Your task to perform on an android device: remove spam from my inbox in the gmail app Image 0: 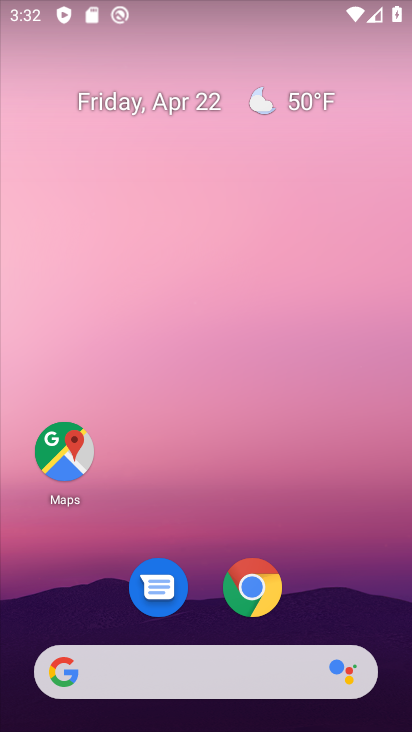
Step 0: drag from (343, 612) to (332, 15)
Your task to perform on an android device: remove spam from my inbox in the gmail app Image 1: 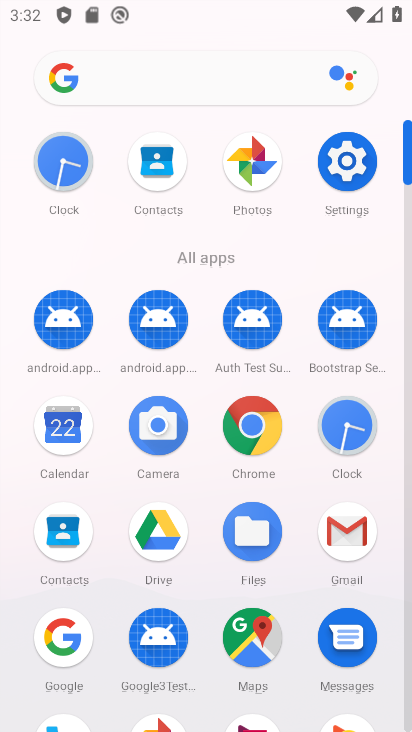
Step 1: click (335, 526)
Your task to perform on an android device: remove spam from my inbox in the gmail app Image 2: 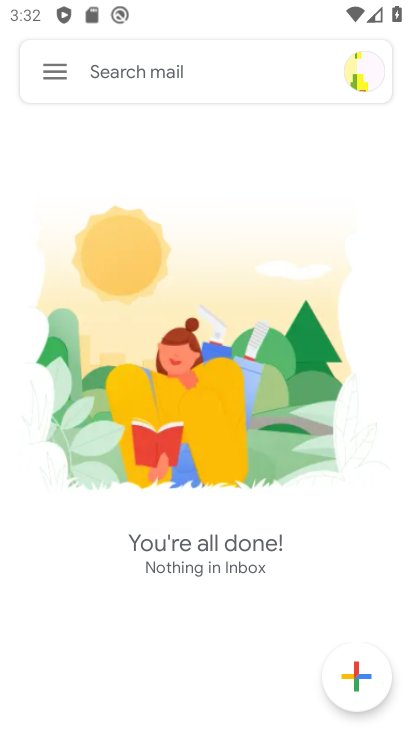
Step 2: click (56, 73)
Your task to perform on an android device: remove spam from my inbox in the gmail app Image 3: 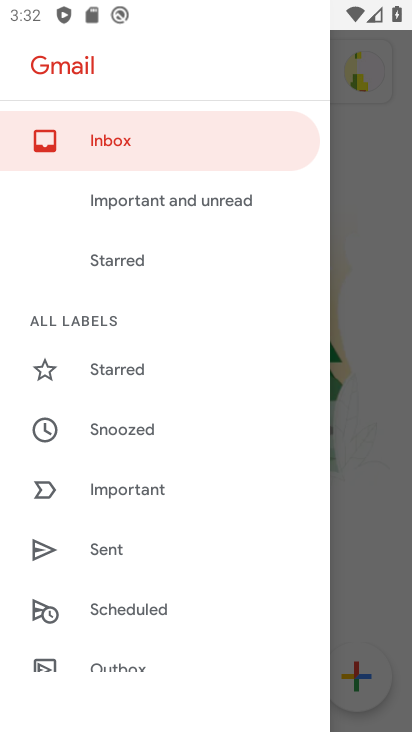
Step 3: drag from (216, 594) to (209, 284)
Your task to perform on an android device: remove spam from my inbox in the gmail app Image 4: 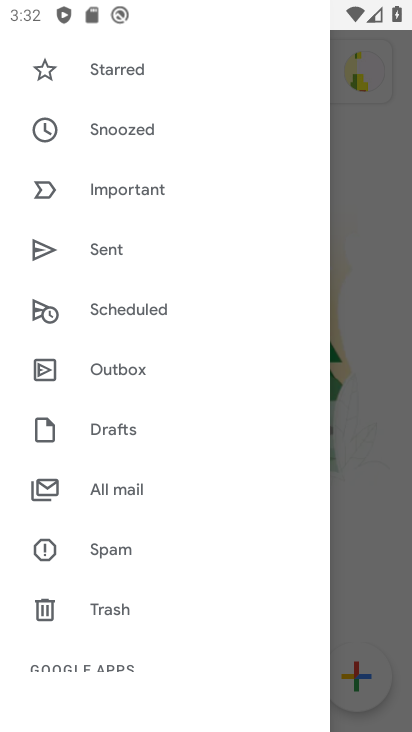
Step 4: click (113, 546)
Your task to perform on an android device: remove spam from my inbox in the gmail app Image 5: 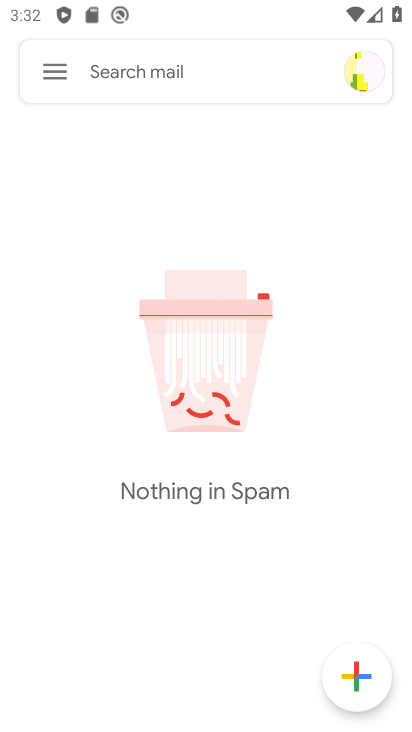
Step 5: task complete